Your task to perform on an android device: turn on location history Image 0: 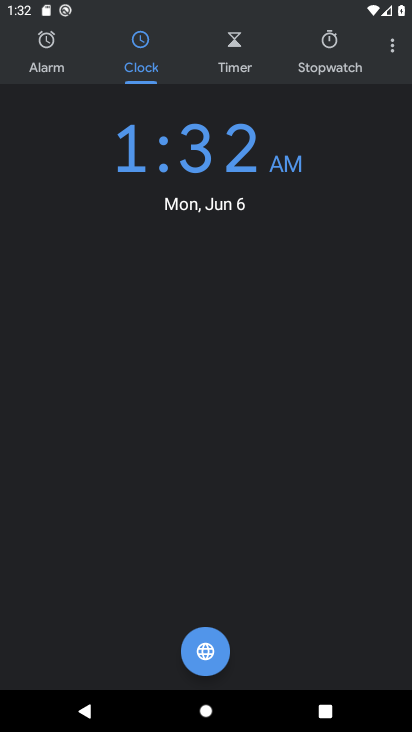
Step 0: press back button
Your task to perform on an android device: turn on location history Image 1: 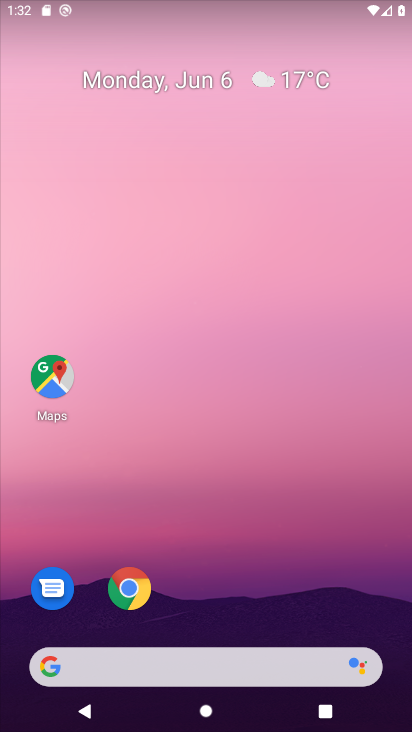
Step 1: drag from (197, 629) to (220, 188)
Your task to perform on an android device: turn on location history Image 2: 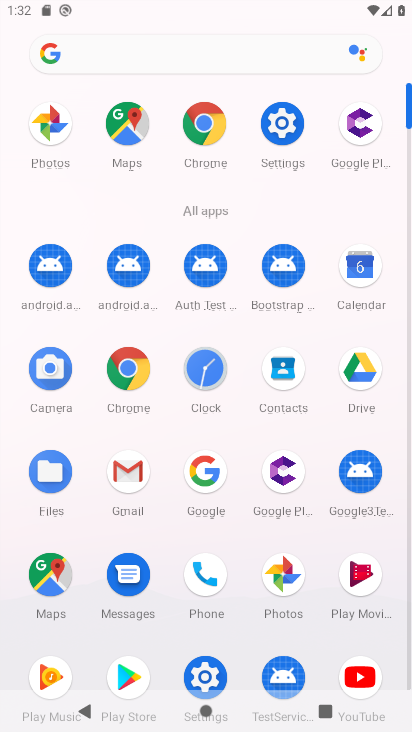
Step 2: click (278, 126)
Your task to perform on an android device: turn on location history Image 3: 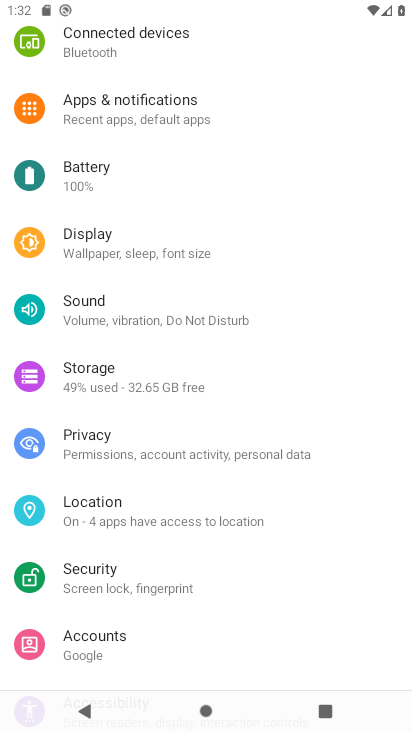
Step 3: drag from (212, 211) to (225, 560)
Your task to perform on an android device: turn on location history Image 4: 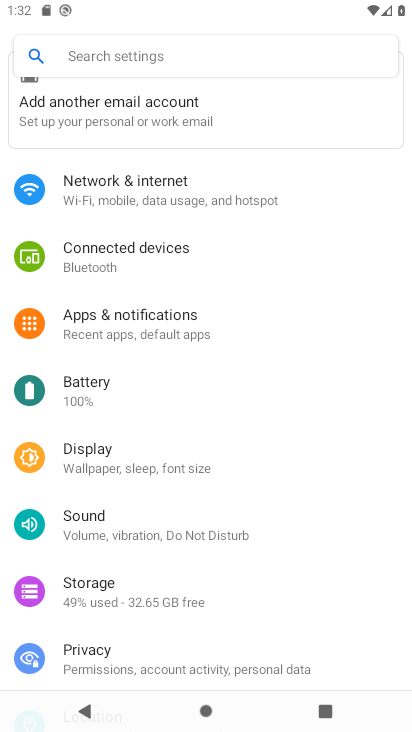
Step 4: drag from (202, 646) to (202, 291)
Your task to perform on an android device: turn on location history Image 5: 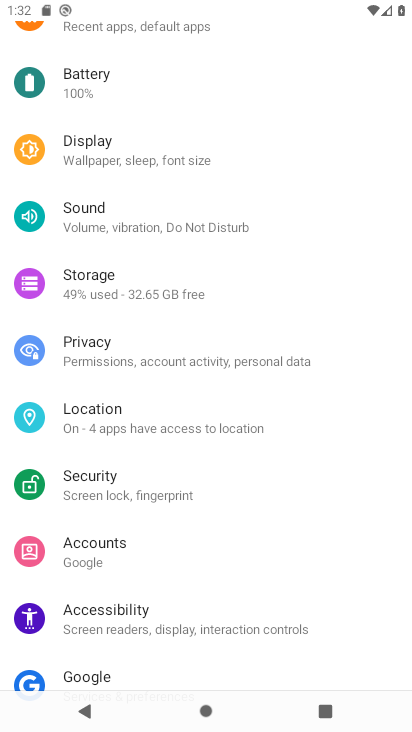
Step 5: click (89, 420)
Your task to perform on an android device: turn on location history Image 6: 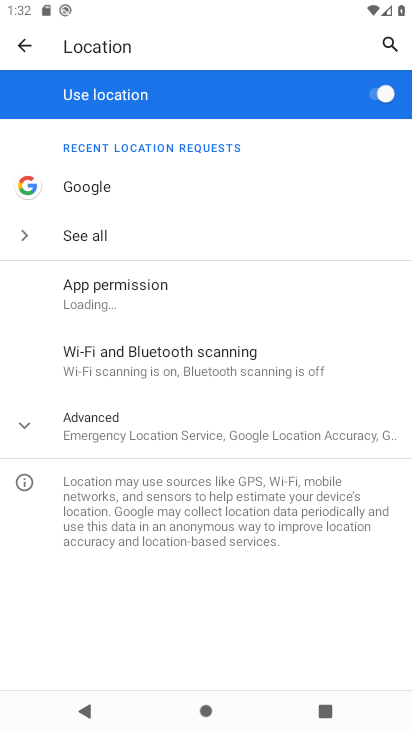
Step 6: click (217, 435)
Your task to perform on an android device: turn on location history Image 7: 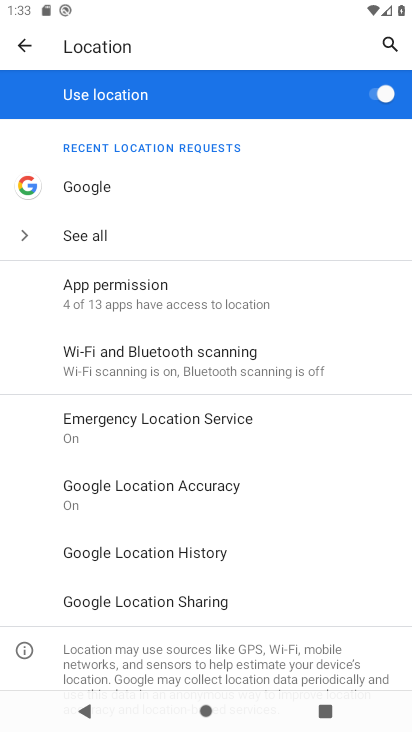
Step 7: click (197, 557)
Your task to perform on an android device: turn on location history Image 8: 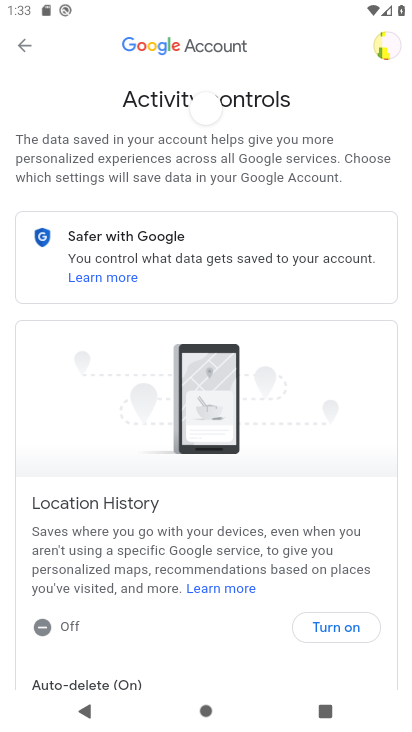
Step 8: click (352, 628)
Your task to perform on an android device: turn on location history Image 9: 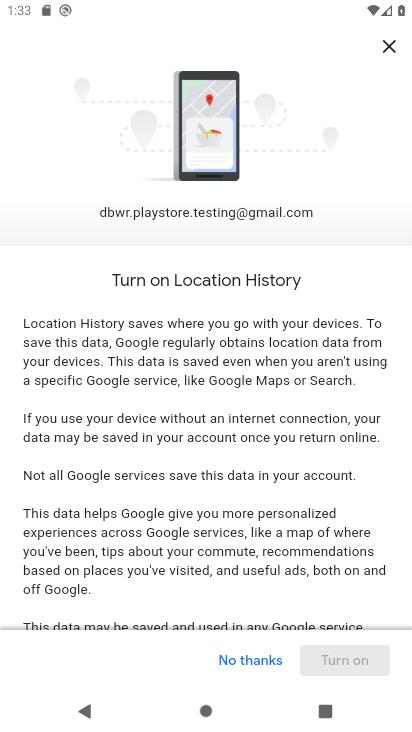
Step 9: drag from (274, 554) to (295, 200)
Your task to perform on an android device: turn on location history Image 10: 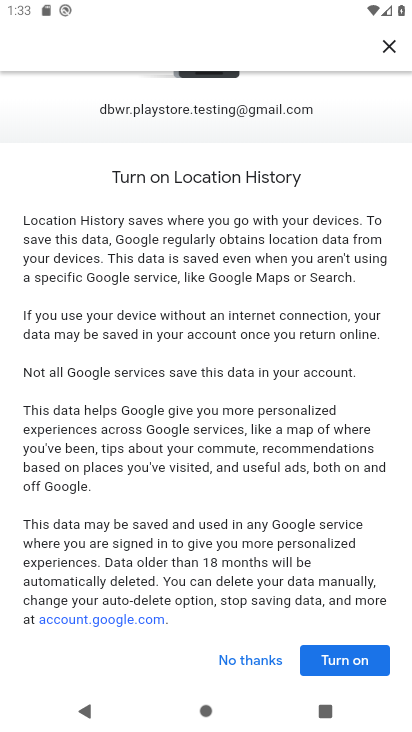
Step 10: click (335, 663)
Your task to perform on an android device: turn on location history Image 11: 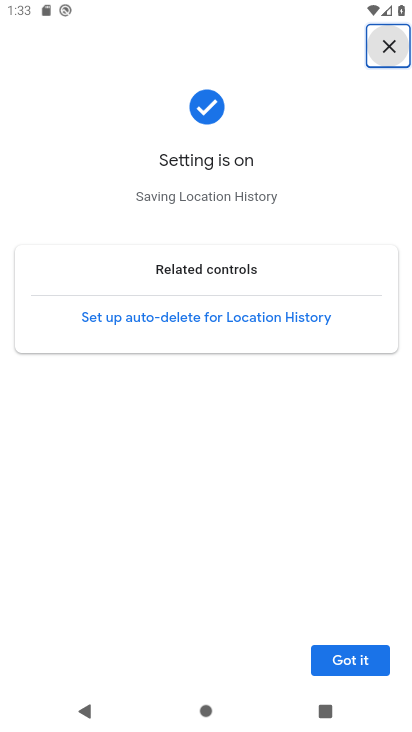
Step 11: click (335, 663)
Your task to perform on an android device: turn on location history Image 12: 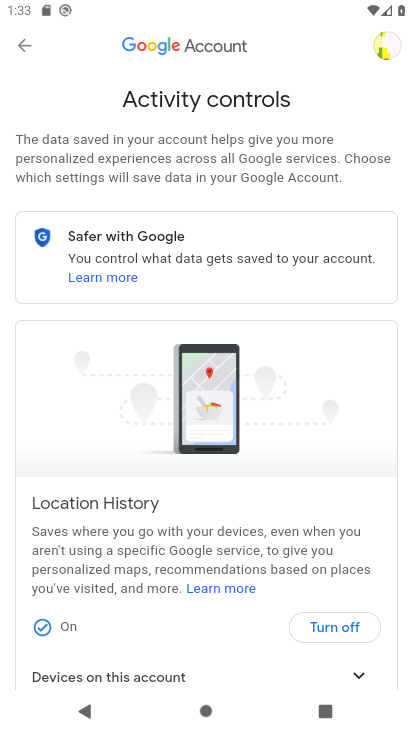
Step 12: task complete